Your task to perform on an android device: Open Google Image 0: 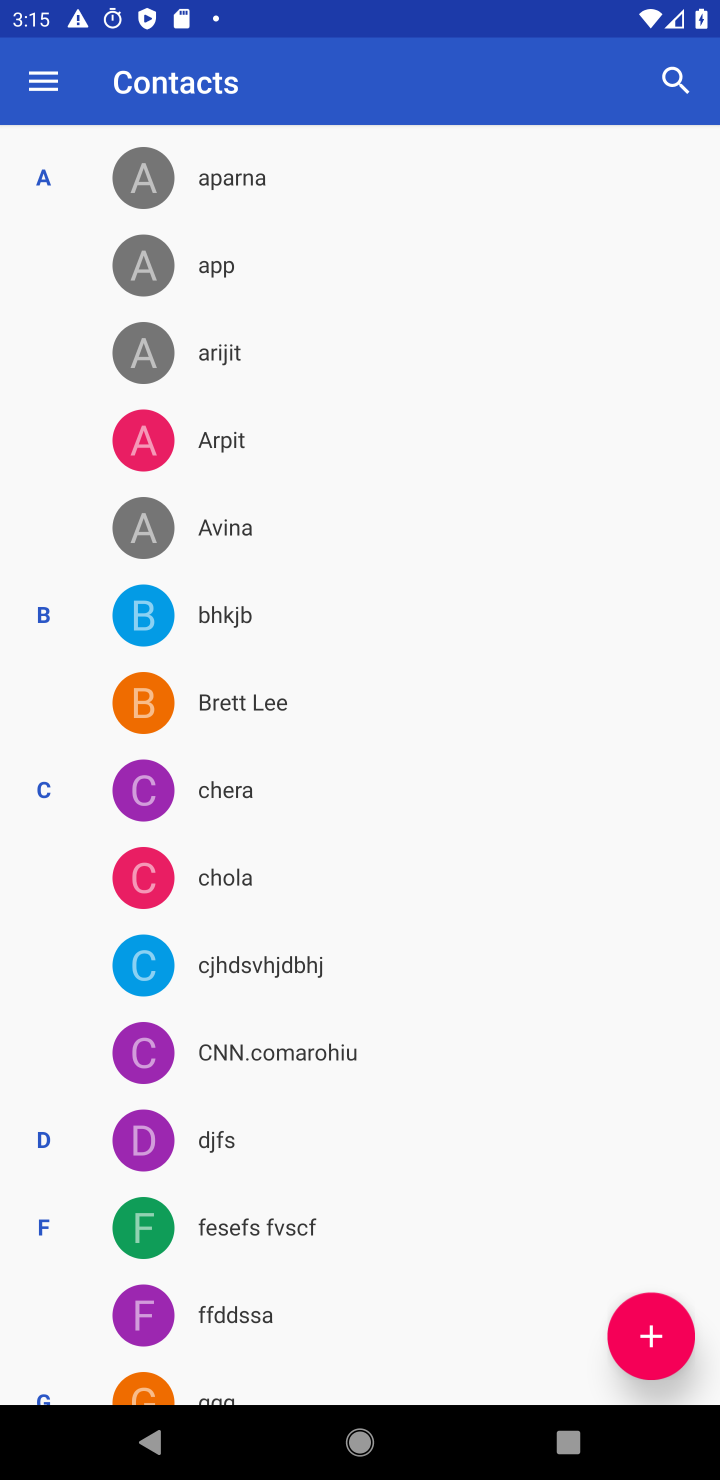
Step 0: press home button
Your task to perform on an android device: Open Google Image 1: 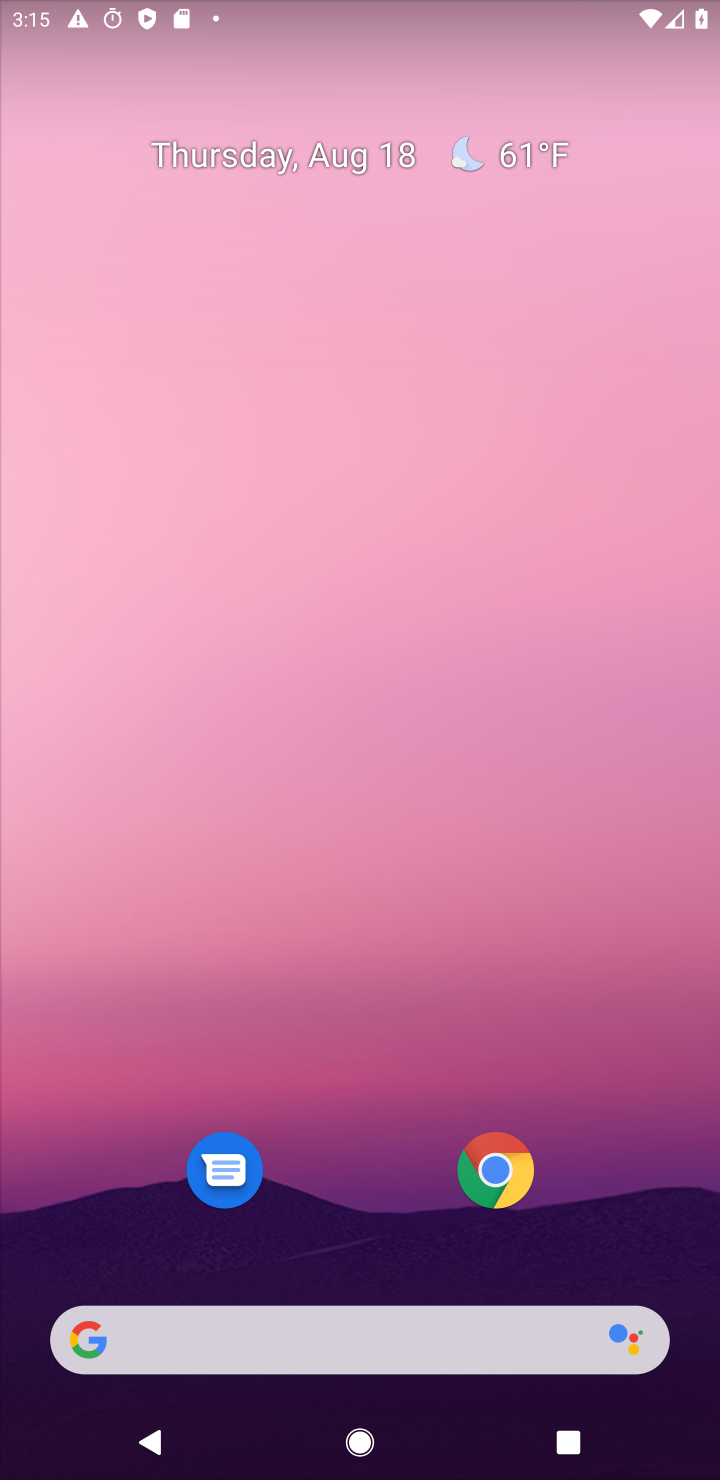
Step 1: click (129, 1327)
Your task to perform on an android device: Open Google Image 2: 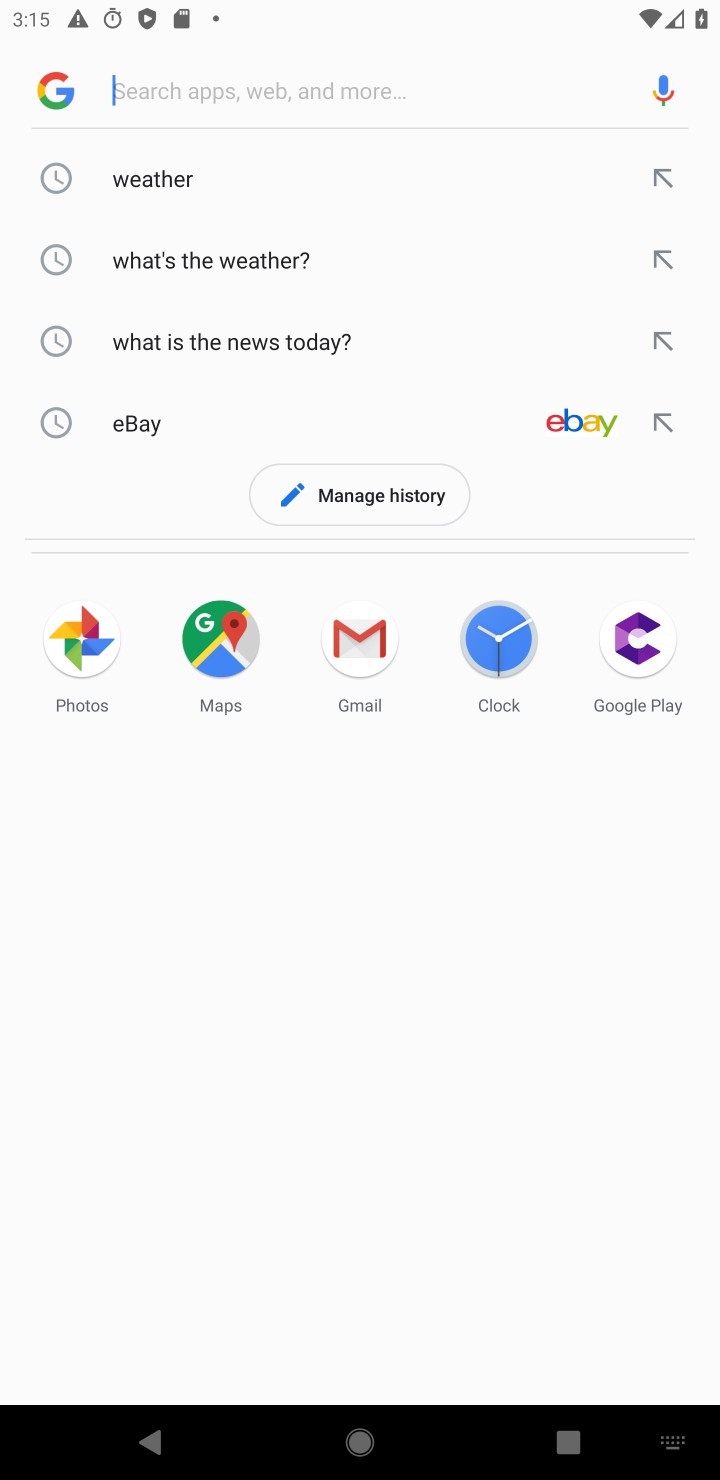
Step 2: task complete